Your task to perform on an android device: Open the calendar and show me this week's events Image 0: 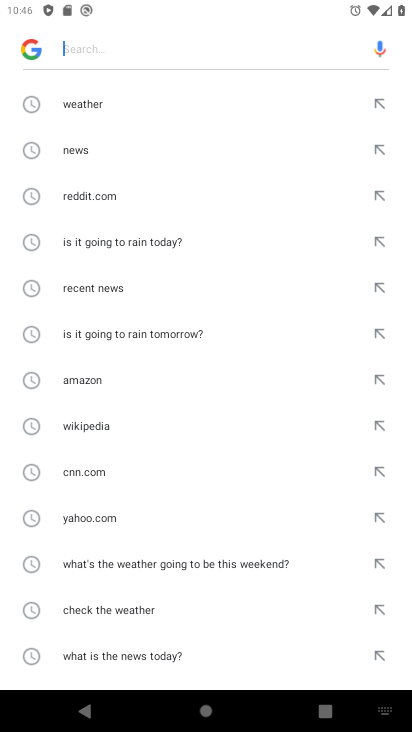
Step 0: press home button
Your task to perform on an android device: Open the calendar and show me this week's events Image 1: 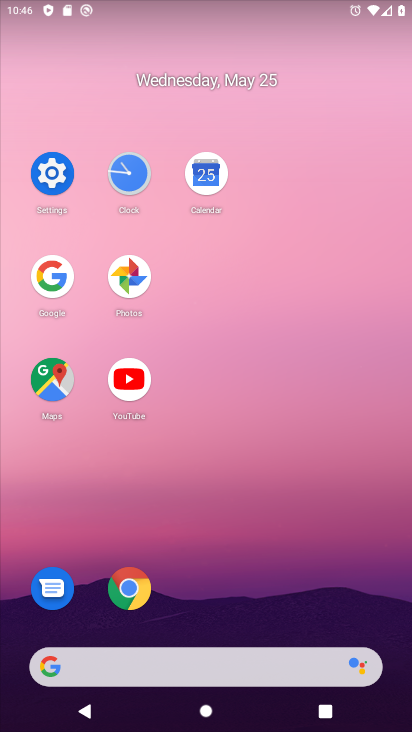
Step 1: click (212, 171)
Your task to perform on an android device: Open the calendar and show me this week's events Image 2: 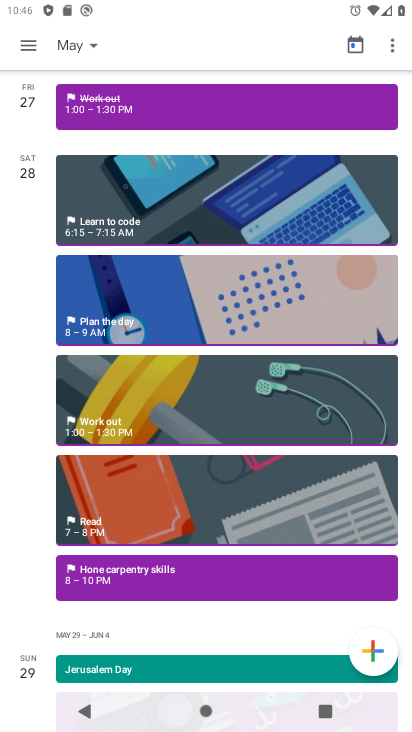
Step 2: click (37, 33)
Your task to perform on an android device: Open the calendar and show me this week's events Image 3: 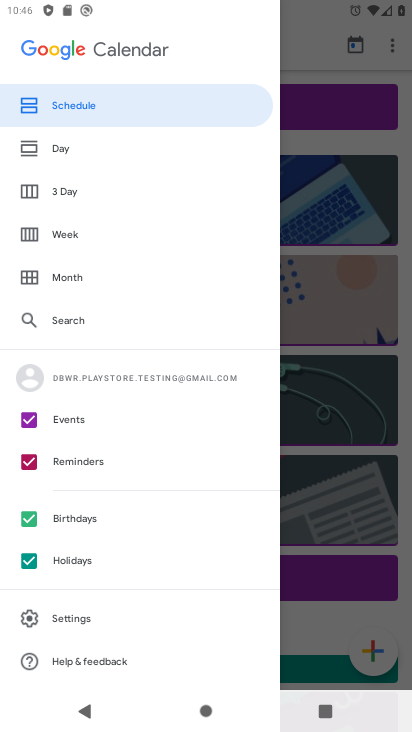
Step 3: click (128, 232)
Your task to perform on an android device: Open the calendar and show me this week's events Image 4: 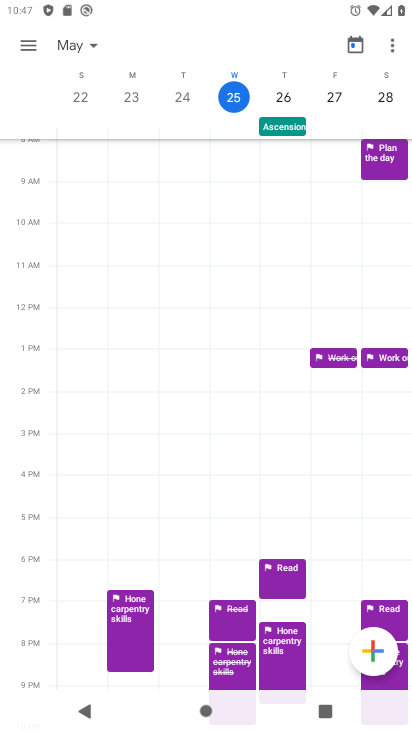
Step 4: task complete